Your task to perform on an android device: Clear the shopping cart on walmart. Add razer kraken to the cart on walmart Image 0: 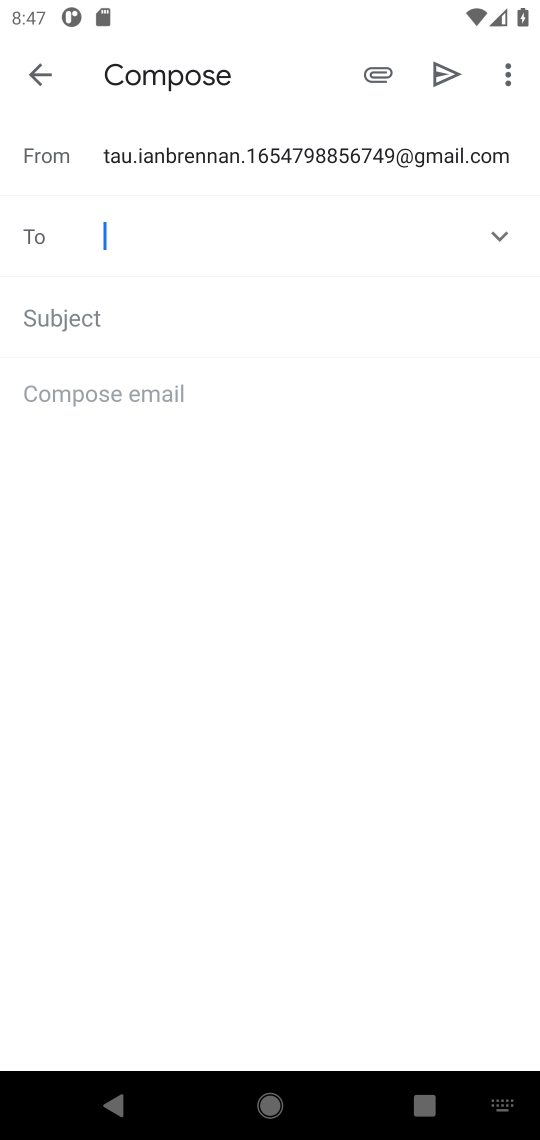
Step 0: press home button
Your task to perform on an android device: Clear the shopping cart on walmart. Add razer kraken to the cart on walmart Image 1: 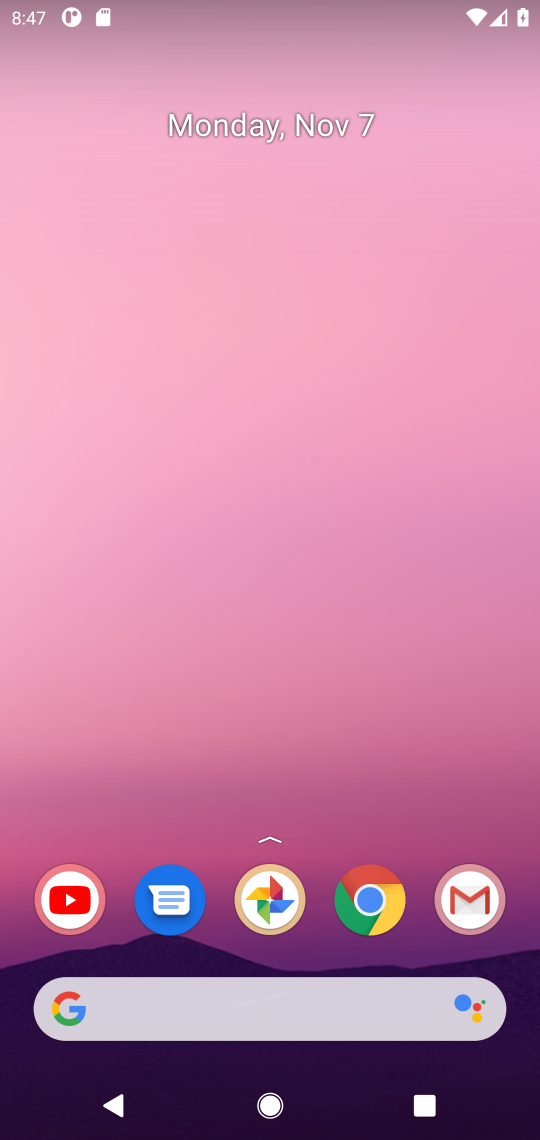
Step 1: drag from (268, 860) to (368, 413)
Your task to perform on an android device: Clear the shopping cart on walmart. Add razer kraken to the cart on walmart Image 2: 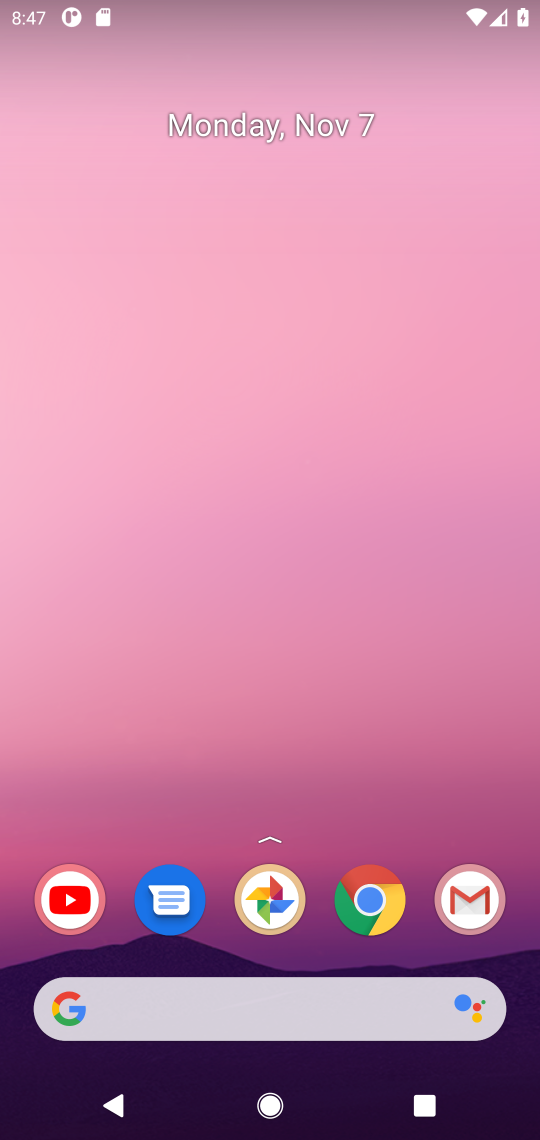
Step 2: click (272, 851)
Your task to perform on an android device: Clear the shopping cart on walmart. Add razer kraken to the cart on walmart Image 3: 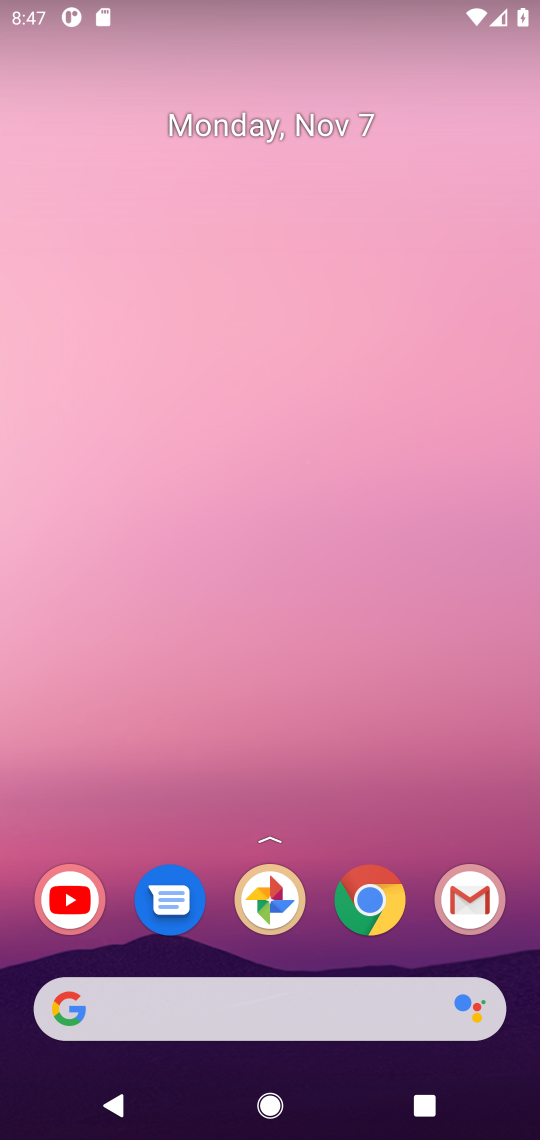
Step 3: drag from (272, 851) to (298, 568)
Your task to perform on an android device: Clear the shopping cart on walmart. Add razer kraken to the cart on walmart Image 4: 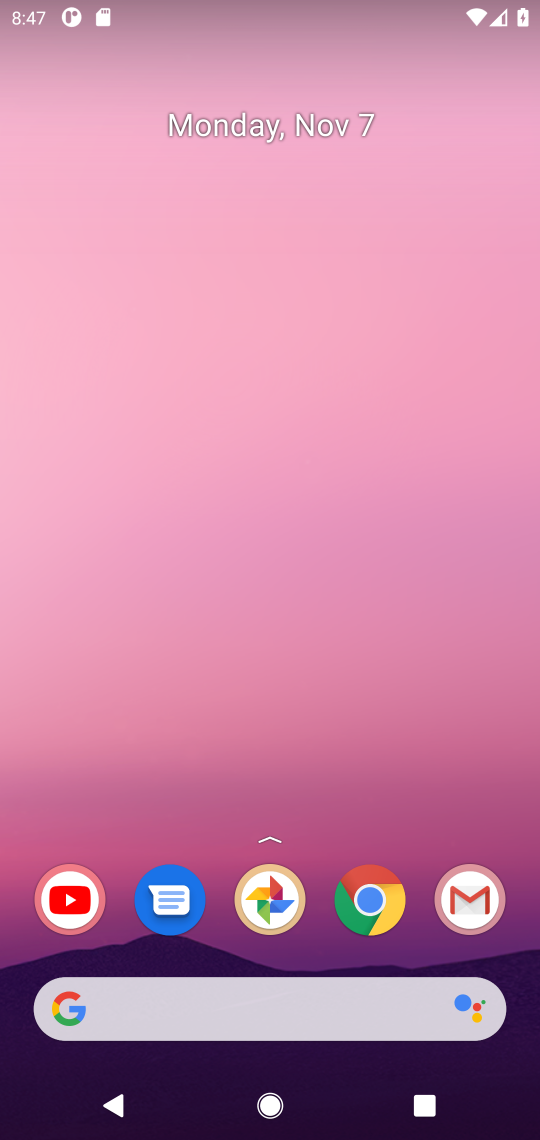
Step 4: drag from (323, 973) to (301, 207)
Your task to perform on an android device: Clear the shopping cart on walmart. Add razer kraken to the cart on walmart Image 5: 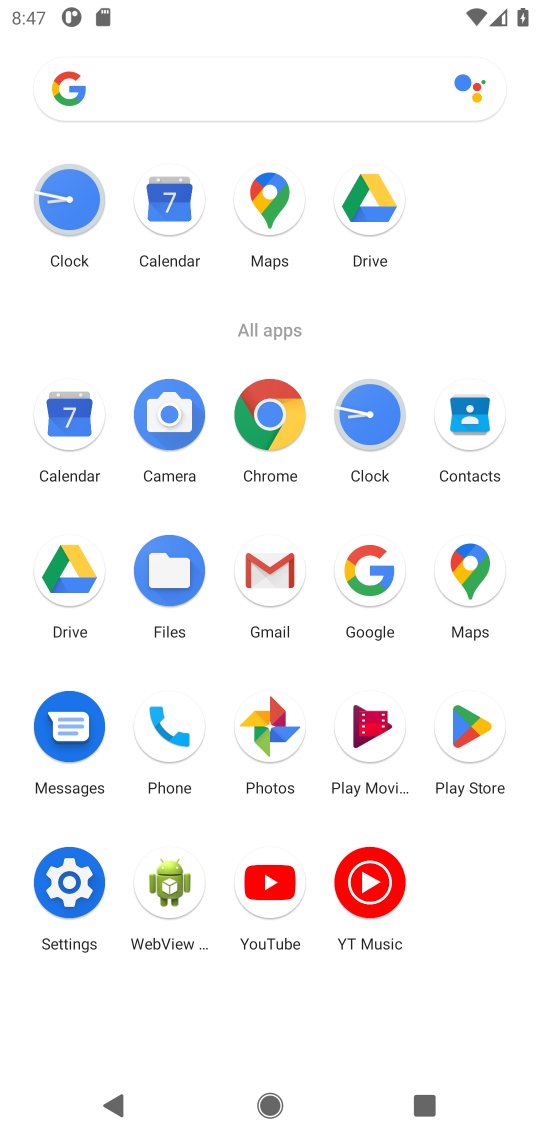
Step 5: click (366, 613)
Your task to perform on an android device: Clear the shopping cart on walmart. Add razer kraken to the cart on walmart Image 6: 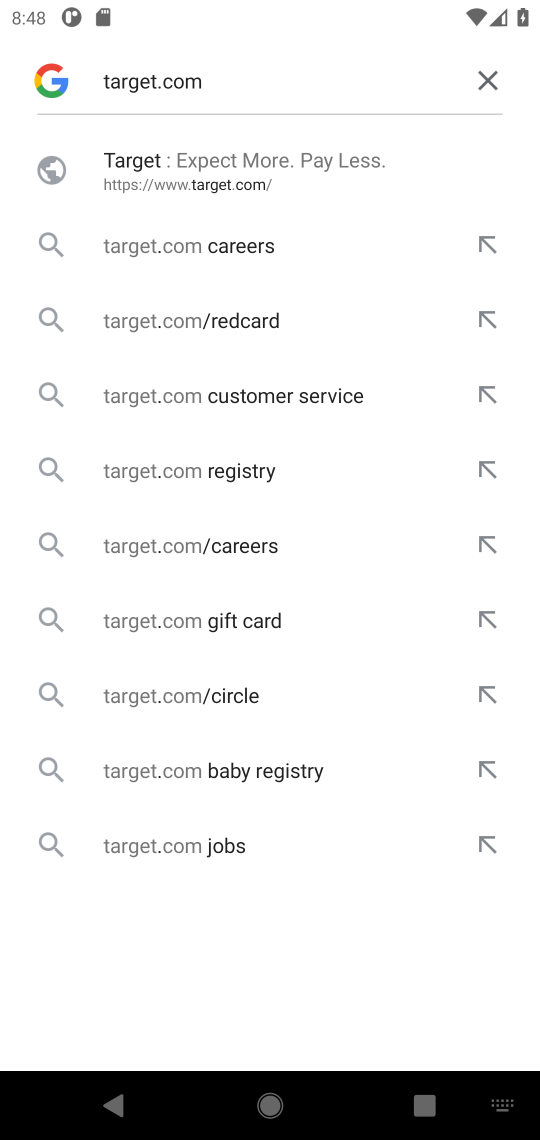
Step 6: click (480, 92)
Your task to perform on an android device: Clear the shopping cart on walmart. Add razer kraken to the cart on walmart Image 7: 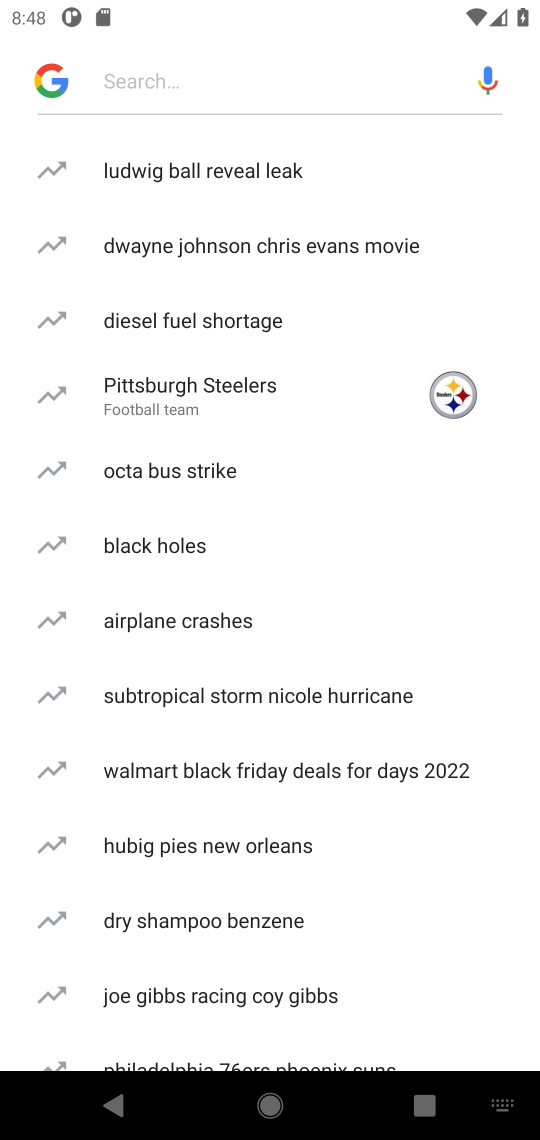
Step 7: type "walmart"
Your task to perform on an android device: Clear the shopping cart on walmart. Add razer kraken to the cart on walmart Image 8: 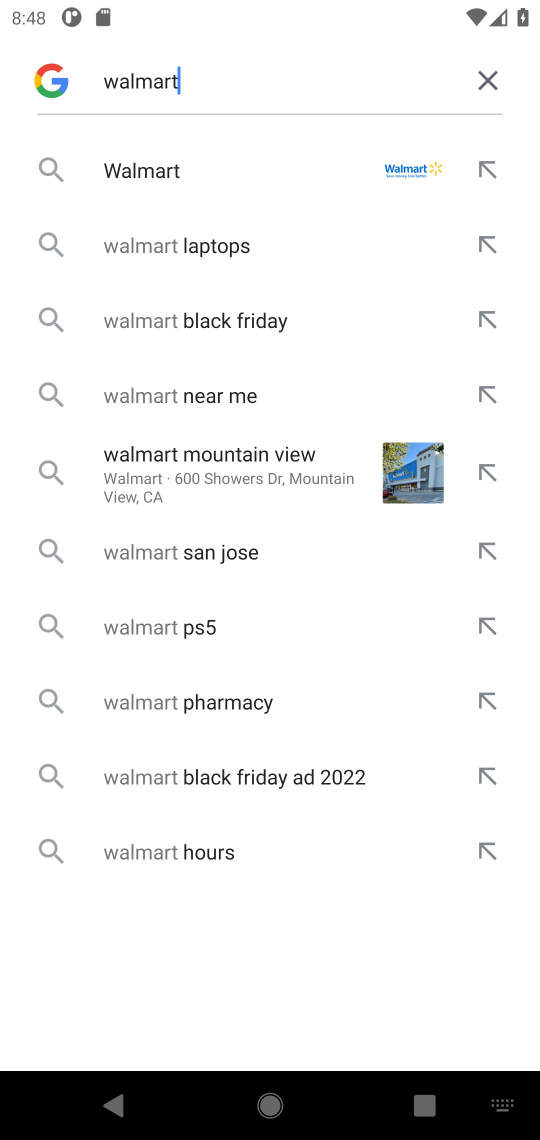
Step 8: click (303, 161)
Your task to perform on an android device: Clear the shopping cart on walmart. Add razer kraken to the cart on walmart Image 9: 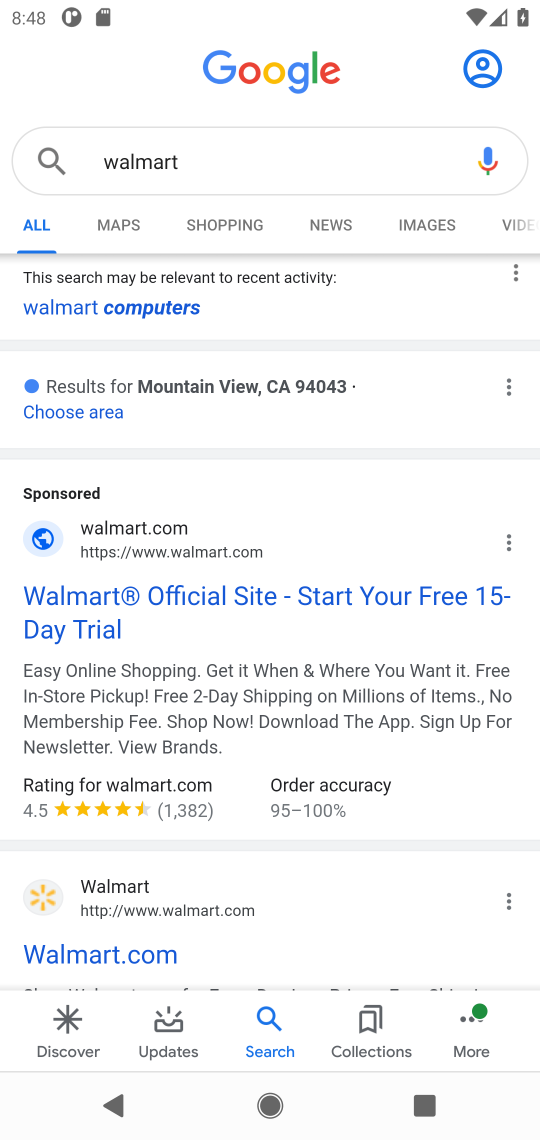
Step 9: click (180, 617)
Your task to perform on an android device: Clear the shopping cart on walmart. Add razer kraken to the cart on walmart Image 10: 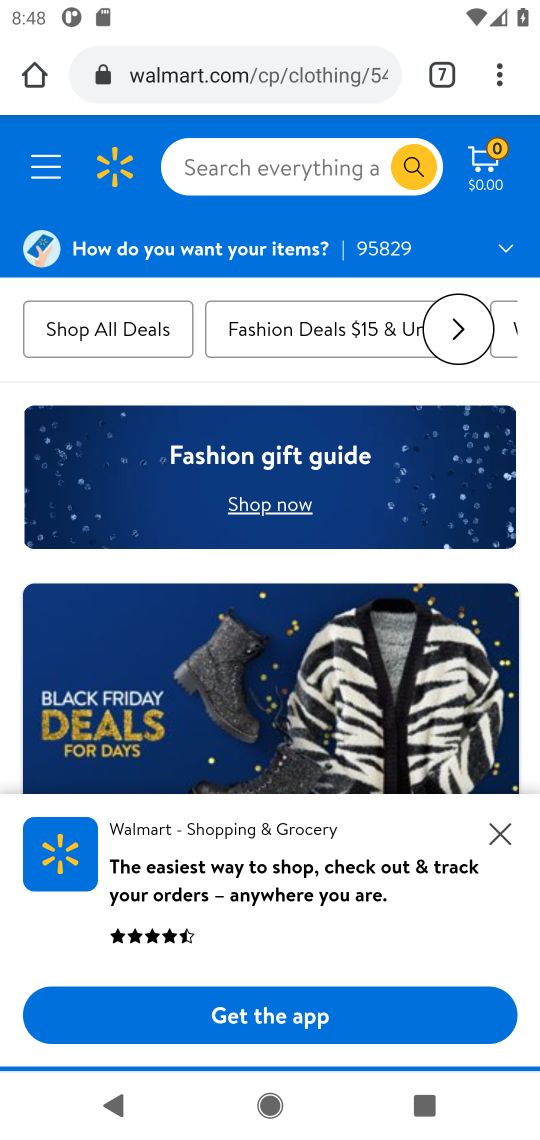
Step 10: click (330, 339)
Your task to perform on an android device: Clear the shopping cart on walmart. Add razer kraken to the cart on walmart Image 11: 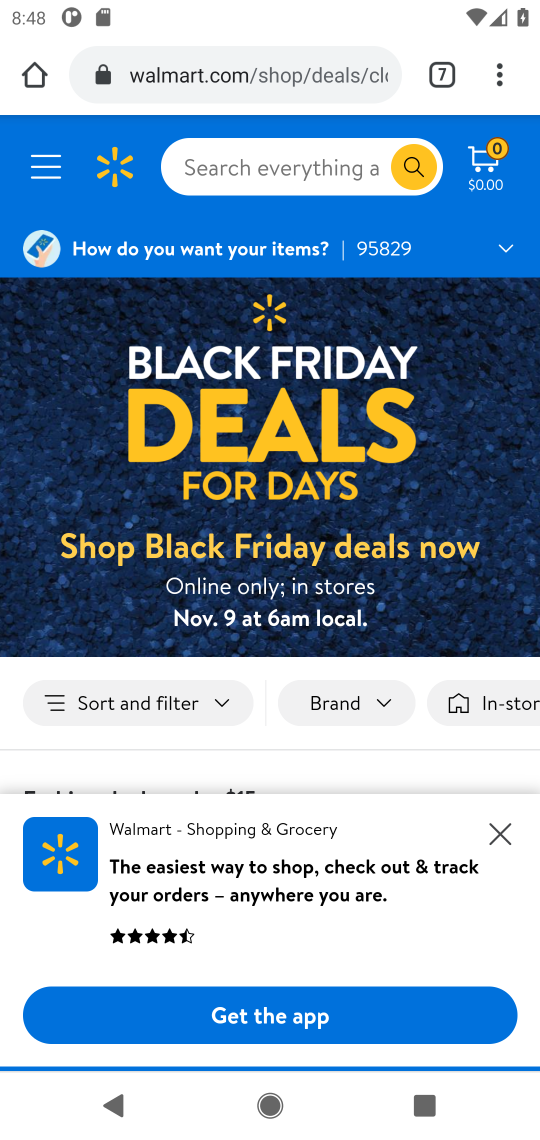
Step 11: click (334, 161)
Your task to perform on an android device: Clear the shopping cart on walmart. Add razer kraken to the cart on walmart Image 12: 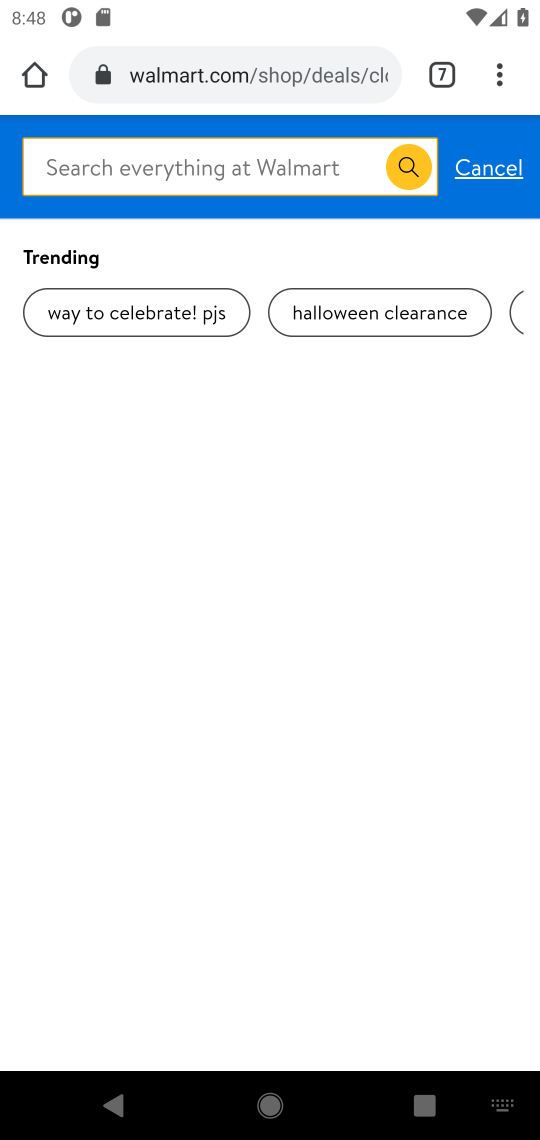
Step 12: type "zrazer kraken"
Your task to perform on an android device: Clear the shopping cart on walmart. Add razer kraken to the cart on walmart Image 13: 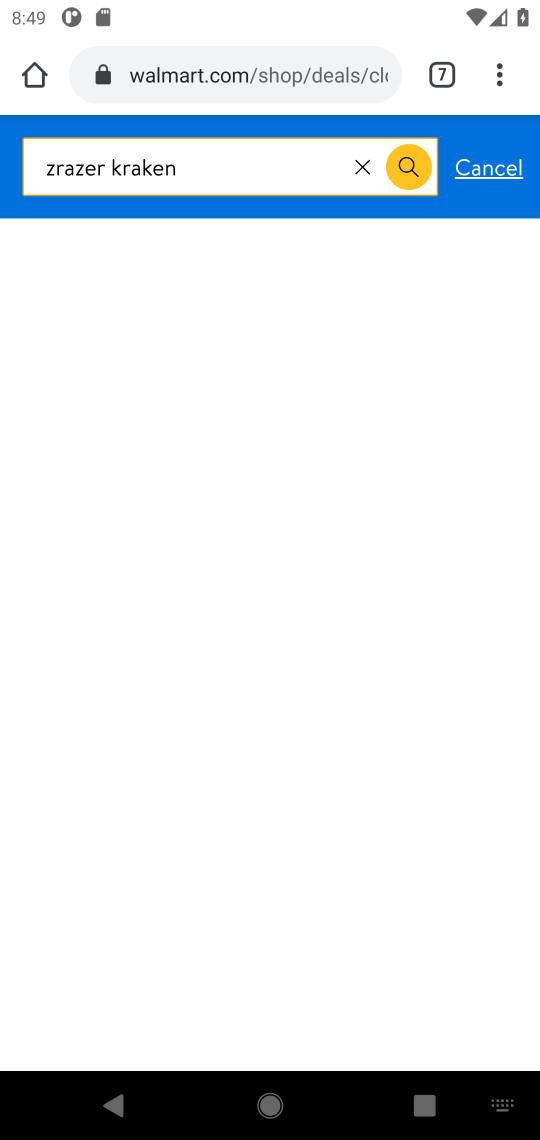
Step 13: click (359, 159)
Your task to perform on an android device: Clear the shopping cart on walmart. Add razer kraken to the cart on walmart Image 14: 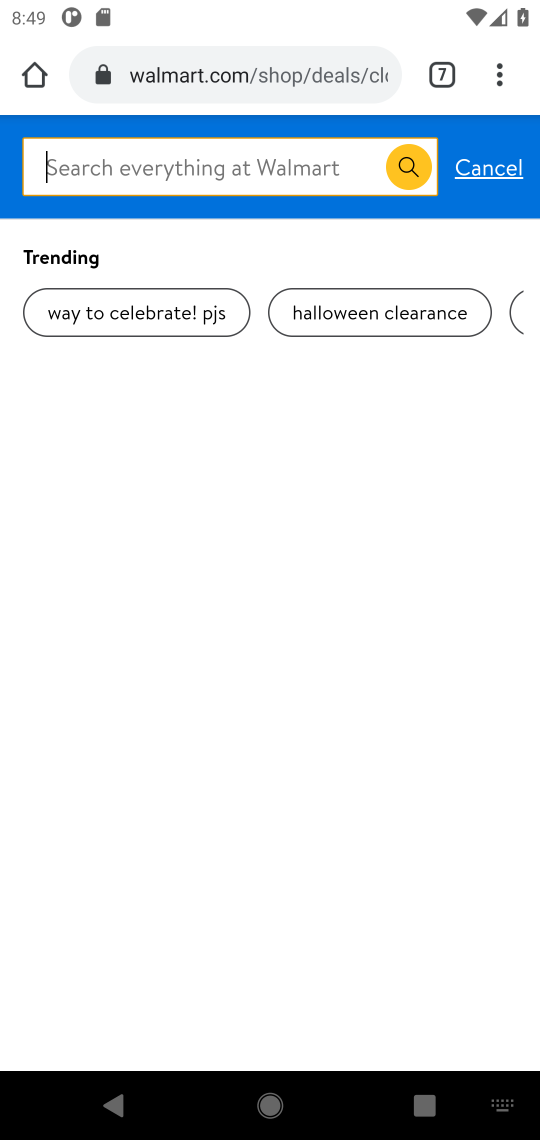
Step 14: type "razer kraken"
Your task to perform on an android device: Clear the shopping cart on walmart. Add razer kraken to the cart on walmart Image 15: 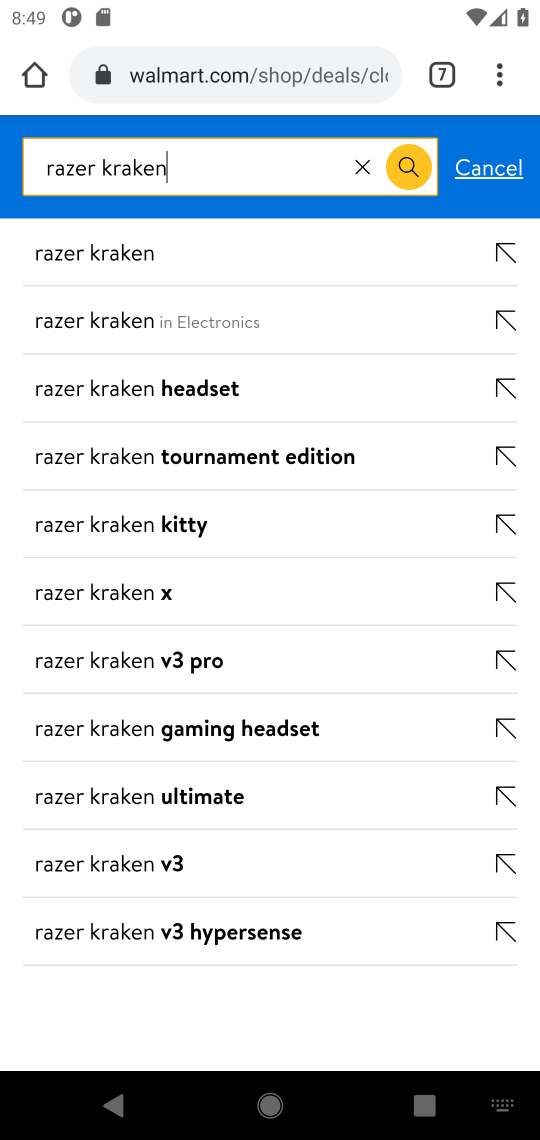
Step 15: click (202, 306)
Your task to perform on an android device: Clear the shopping cart on walmart. Add razer kraken to the cart on walmart Image 16: 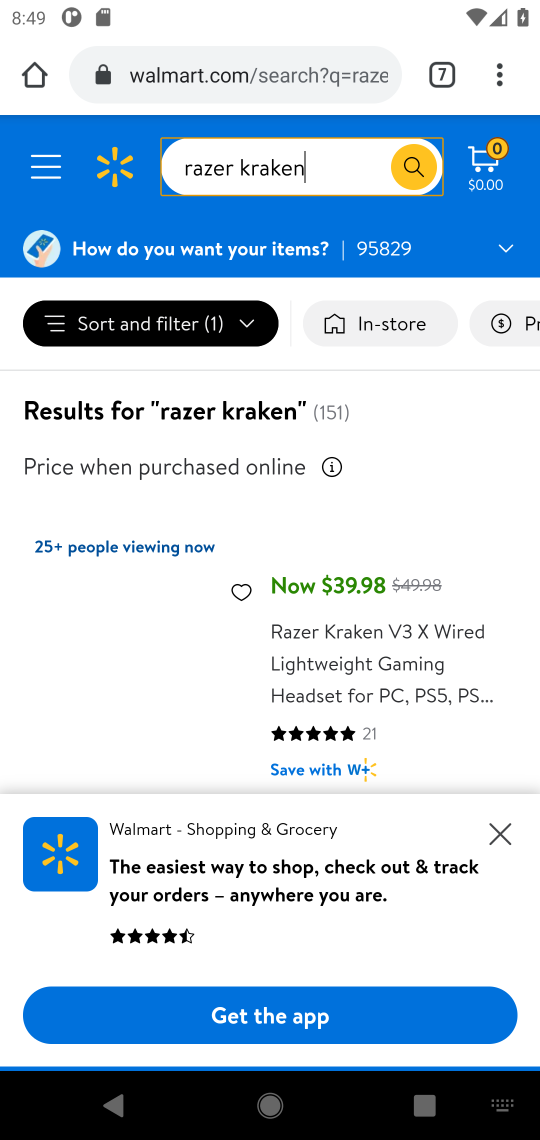
Step 16: click (488, 828)
Your task to perform on an android device: Clear the shopping cart on walmart. Add razer kraken to the cart on walmart Image 17: 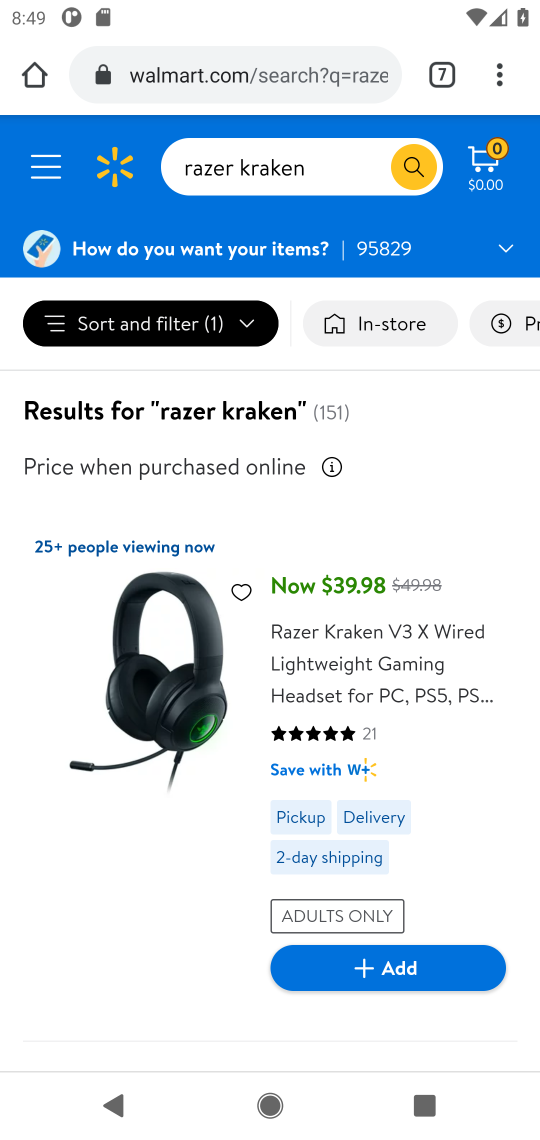
Step 17: drag from (461, 780) to (472, 424)
Your task to perform on an android device: Clear the shopping cart on walmart. Add razer kraken to the cart on walmart Image 18: 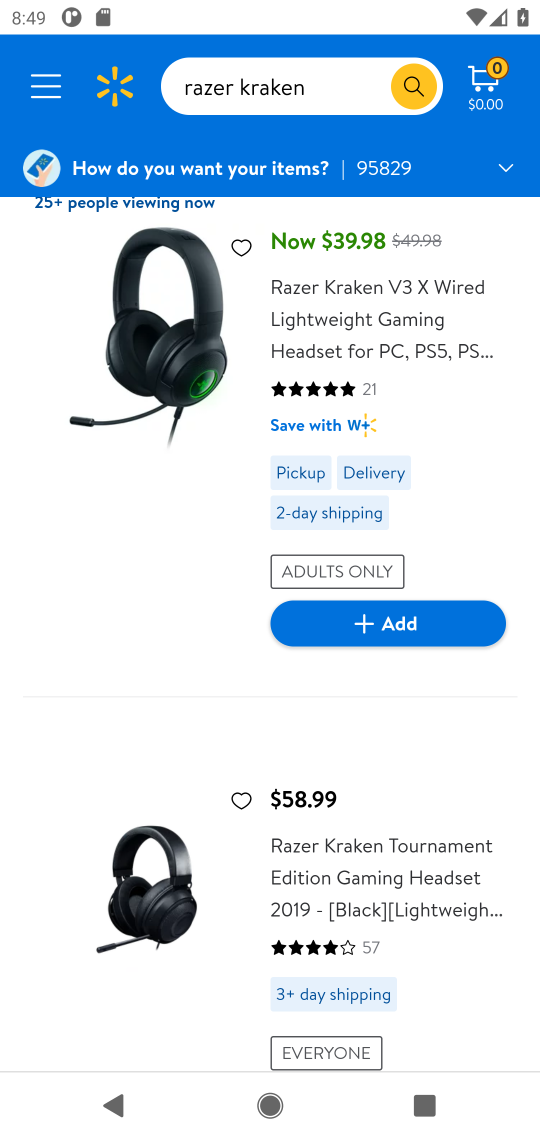
Step 18: click (440, 620)
Your task to perform on an android device: Clear the shopping cart on walmart. Add razer kraken to the cart on walmart Image 19: 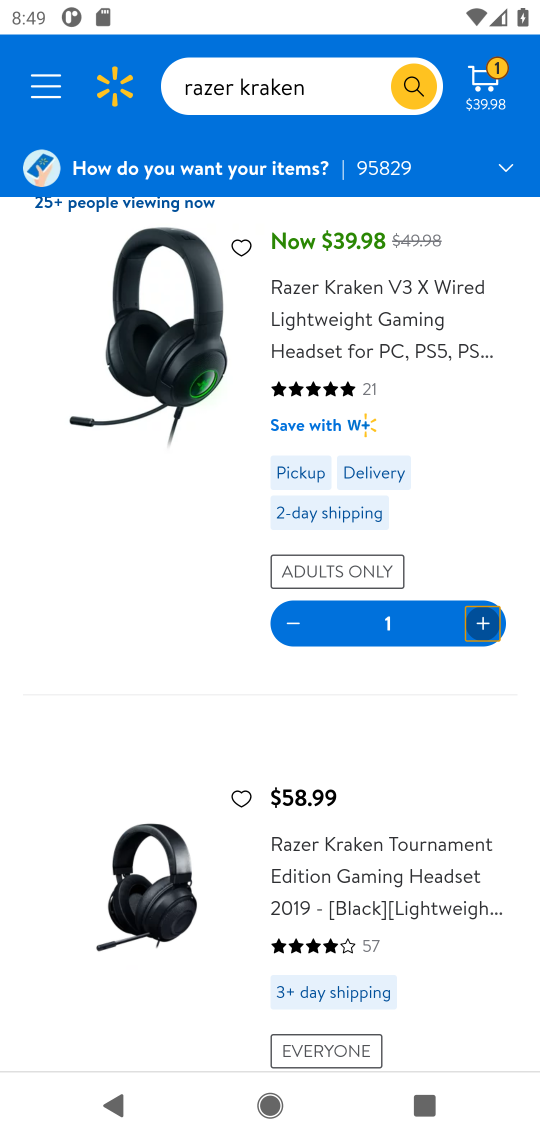
Step 19: task complete